Your task to perform on an android device: Open CNN.com Image 0: 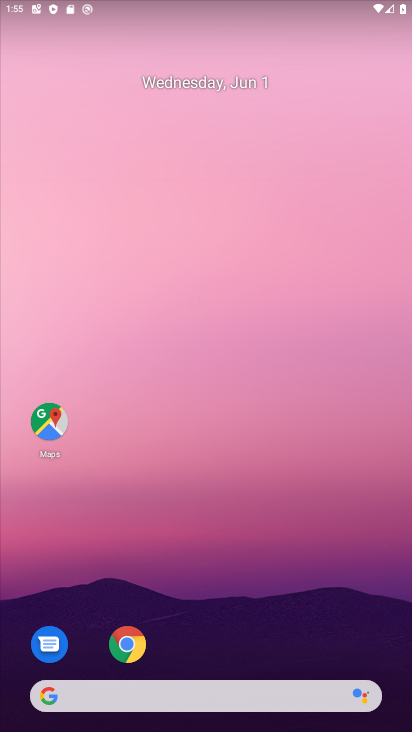
Step 0: click (124, 643)
Your task to perform on an android device: Open CNN.com Image 1: 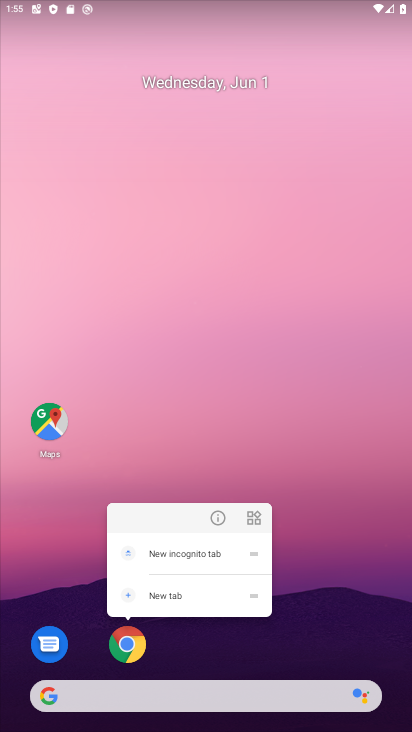
Step 1: click (214, 515)
Your task to perform on an android device: Open CNN.com Image 2: 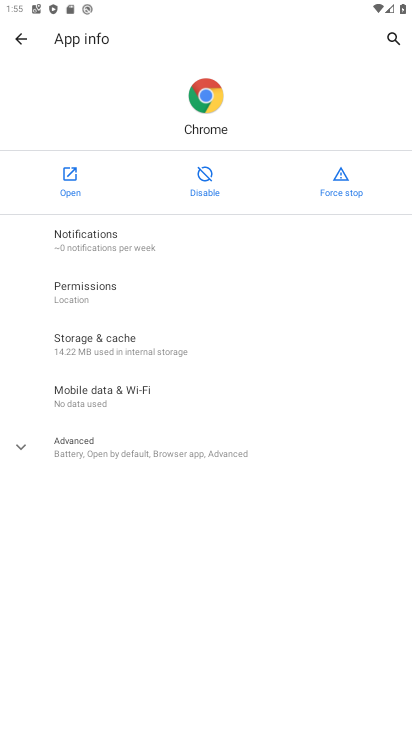
Step 2: click (78, 186)
Your task to perform on an android device: Open CNN.com Image 3: 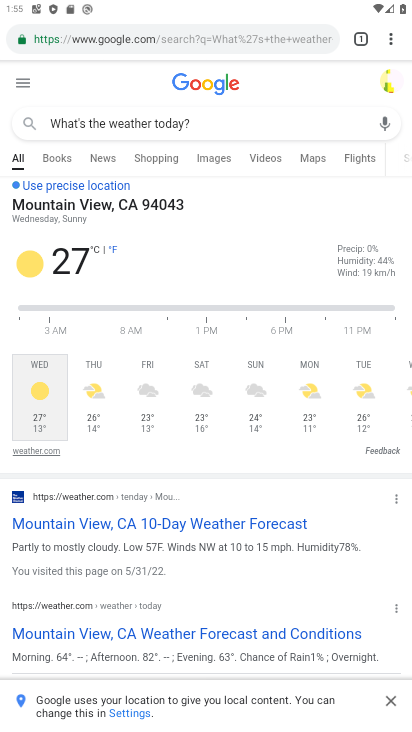
Step 3: click (82, 35)
Your task to perform on an android device: Open CNN.com Image 4: 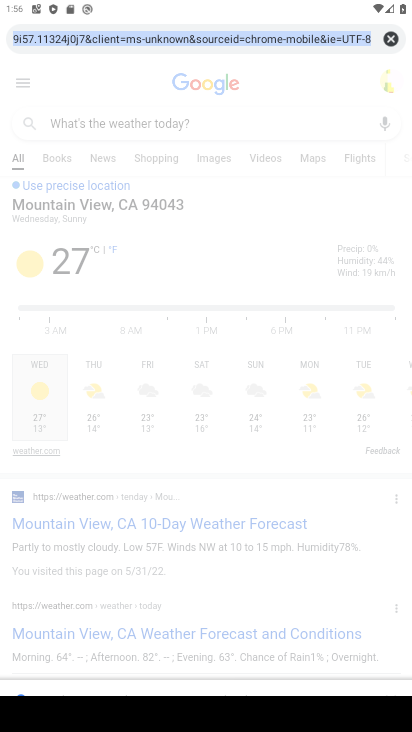
Step 4: type "CNN.com"
Your task to perform on an android device: Open CNN.com Image 5: 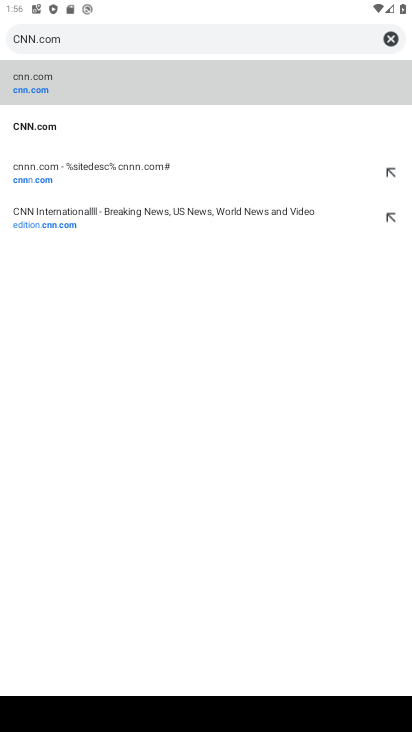
Step 5: click (74, 131)
Your task to perform on an android device: Open CNN.com Image 6: 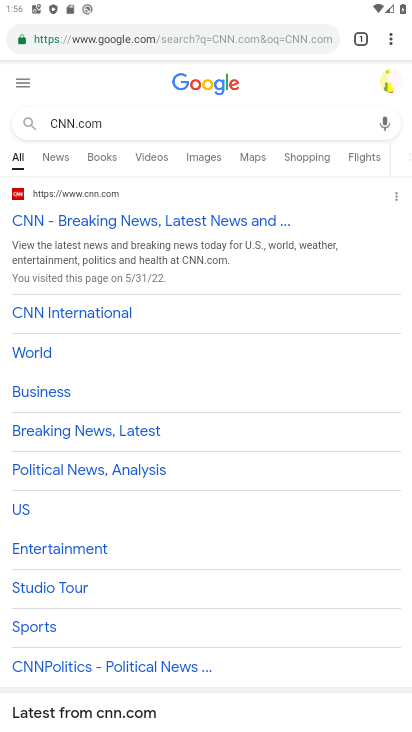
Step 6: task complete